Your task to perform on an android device: Open Reddit.com Image 0: 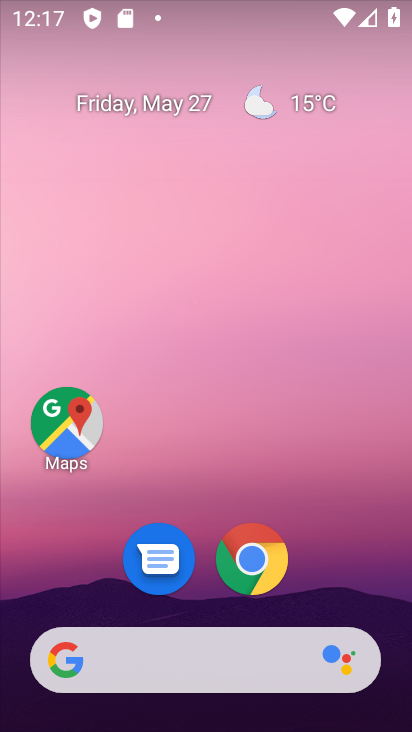
Step 0: click (263, 554)
Your task to perform on an android device: Open Reddit.com Image 1: 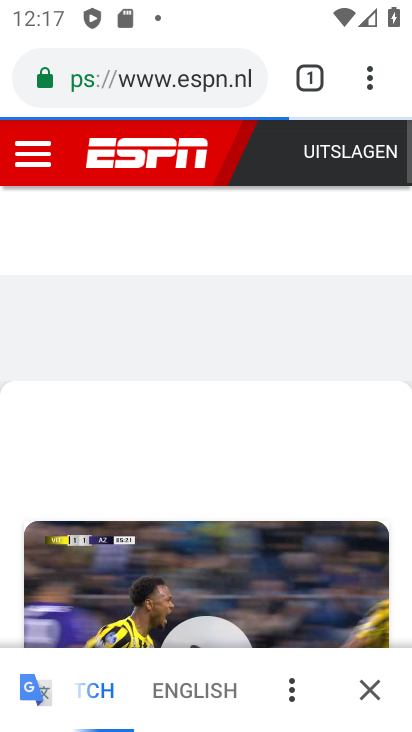
Step 1: click (319, 74)
Your task to perform on an android device: Open Reddit.com Image 2: 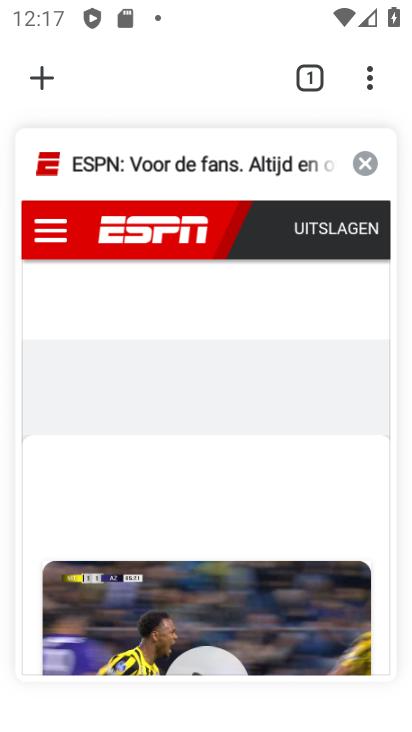
Step 2: click (29, 59)
Your task to perform on an android device: Open Reddit.com Image 3: 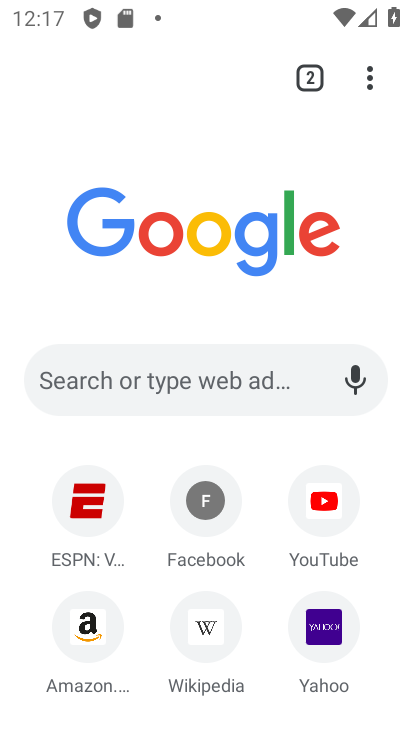
Step 3: click (185, 365)
Your task to perform on an android device: Open Reddit.com Image 4: 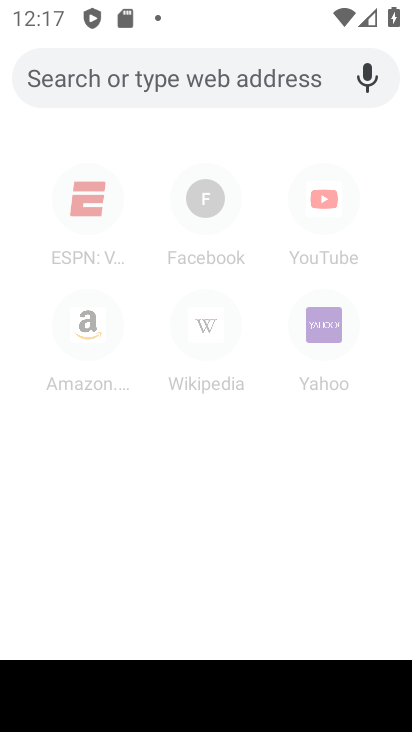
Step 4: type "reddit.com"
Your task to perform on an android device: Open Reddit.com Image 5: 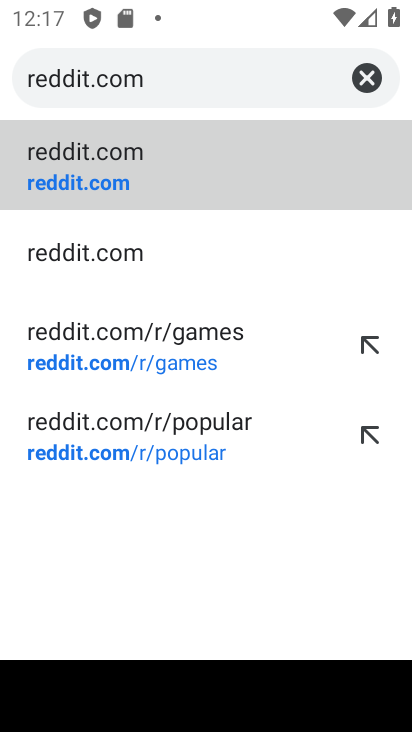
Step 5: click (267, 183)
Your task to perform on an android device: Open Reddit.com Image 6: 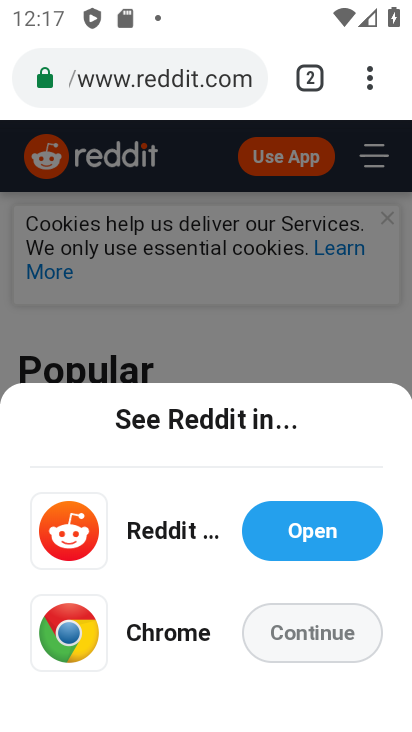
Step 6: task complete